Your task to perform on an android device: Open sound settings Image 0: 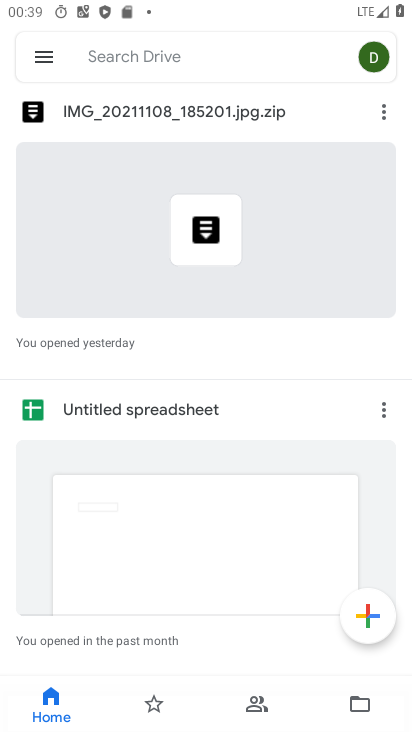
Step 0: press home button
Your task to perform on an android device: Open sound settings Image 1: 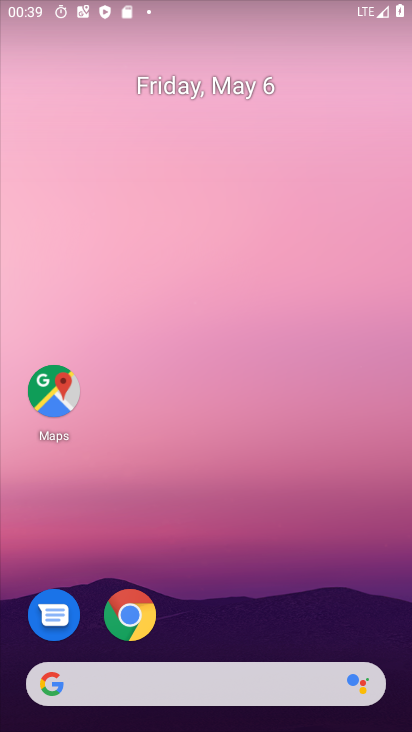
Step 1: drag from (239, 639) to (259, 32)
Your task to perform on an android device: Open sound settings Image 2: 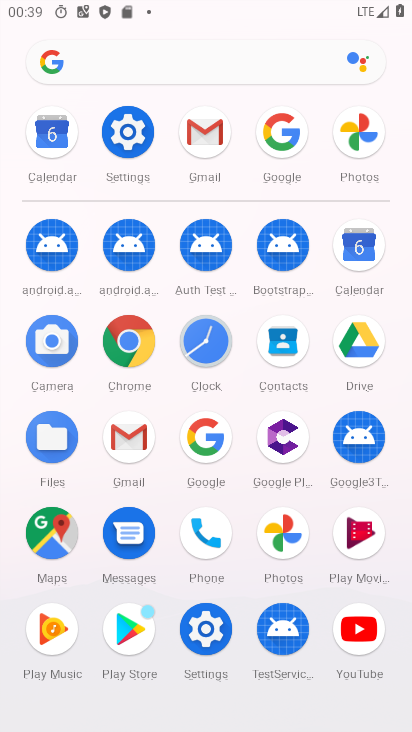
Step 2: click (204, 632)
Your task to perform on an android device: Open sound settings Image 3: 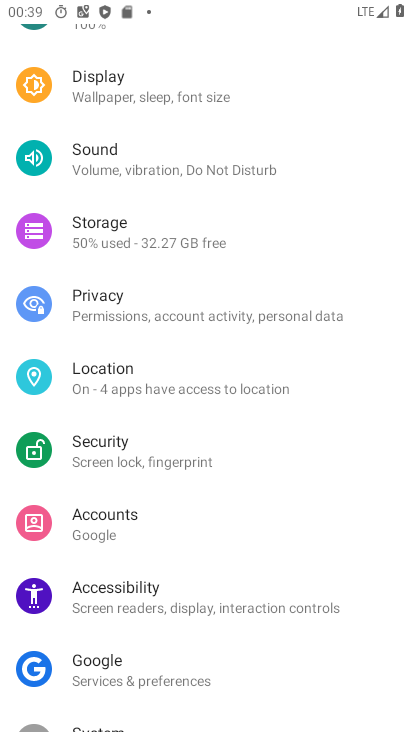
Step 3: click (128, 165)
Your task to perform on an android device: Open sound settings Image 4: 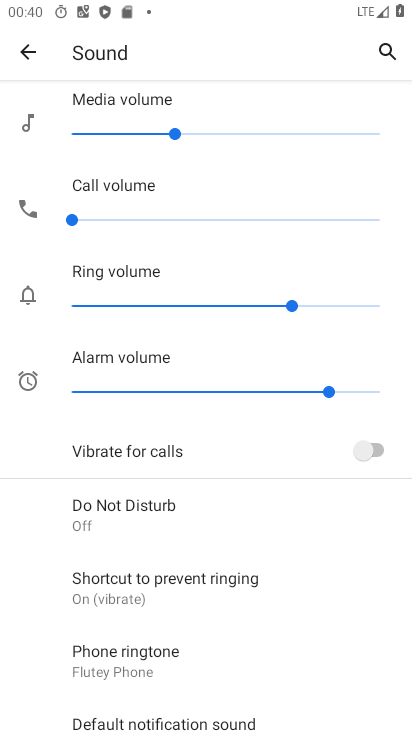
Step 4: task complete